Your task to perform on an android device: Open the phone app and click the voicemail tab. Image 0: 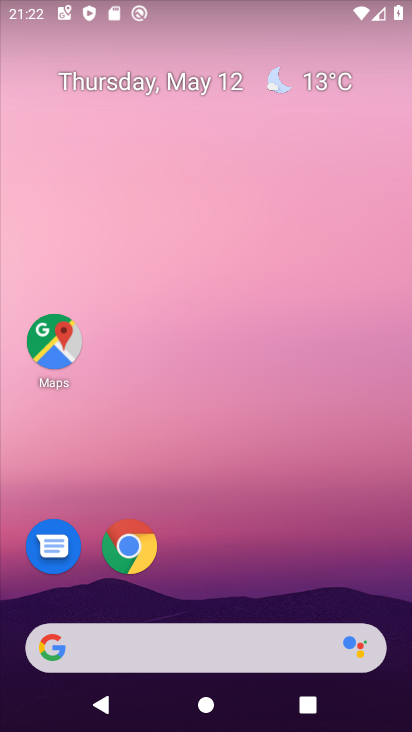
Step 0: press home button
Your task to perform on an android device: Open the phone app and click the voicemail tab. Image 1: 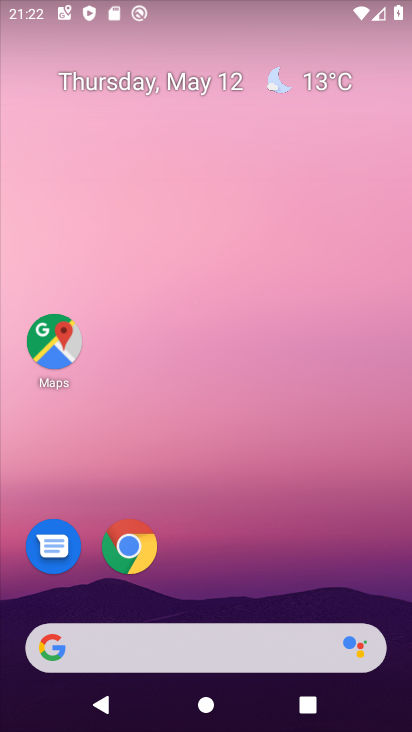
Step 1: drag from (264, 498) to (260, 123)
Your task to perform on an android device: Open the phone app and click the voicemail tab. Image 2: 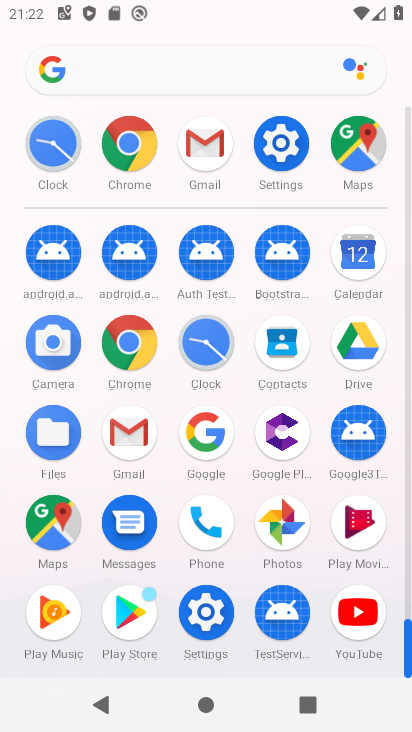
Step 2: drag from (239, 211) to (249, 12)
Your task to perform on an android device: Open the phone app and click the voicemail tab. Image 3: 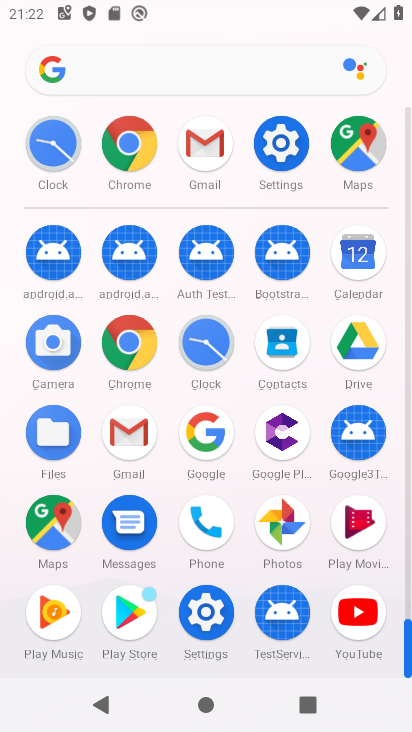
Step 3: click (206, 516)
Your task to perform on an android device: Open the phone app and click the voicemail tab. Image 4: 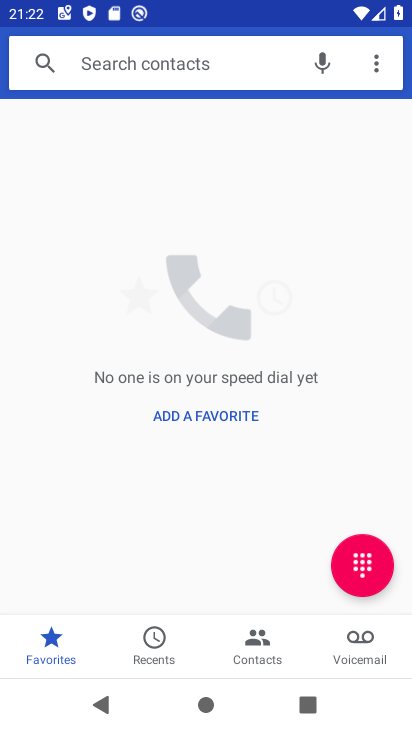
Step 4: click (363, 655)
Your task to perform on an android device: Open the phone app and click the voicemail tab. Image 5: 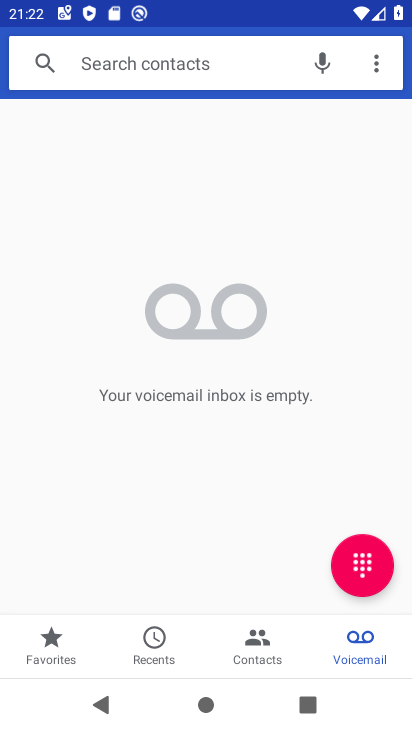
Step 5: task complete